Your task to perform on an android device: Open sound settings Image 0: 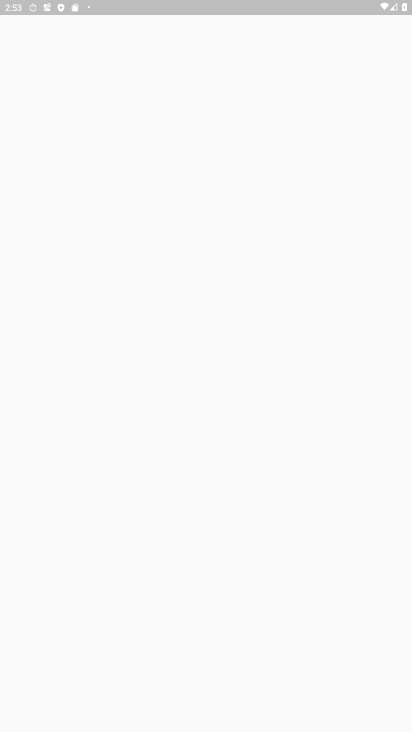
Step 0: press home button
Your task to perform on an android device: Open sound settings Image 1: 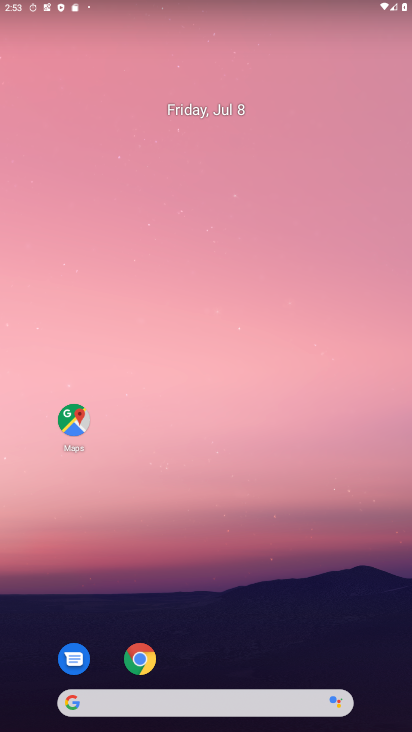
Step 1: drag from (286, 537) to (285, 185)
Your task to perform on an android device: Open sound settings Image 2: 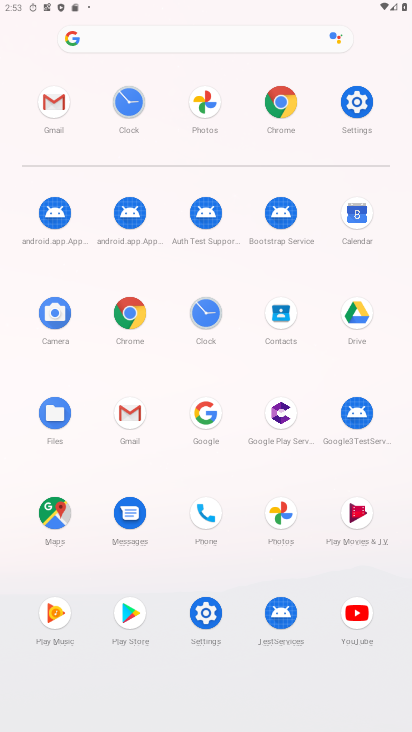
Step 2: click (360, 102)
Your task to perform on an android device: Open sound settings Image 3: 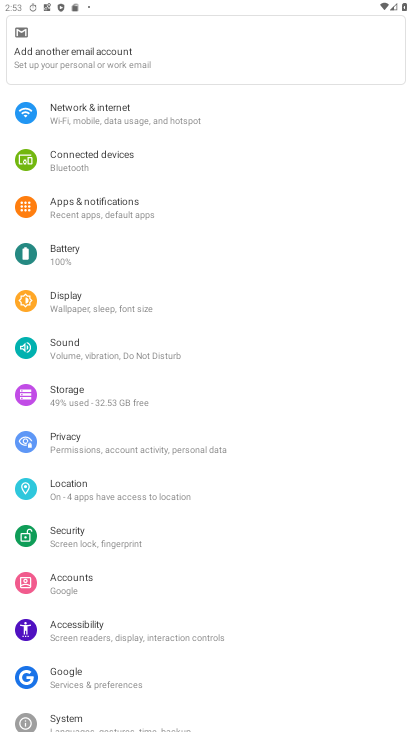
Step 3: click (136, 352)
Your task to perform on an android device: Open sound settings Image 4: 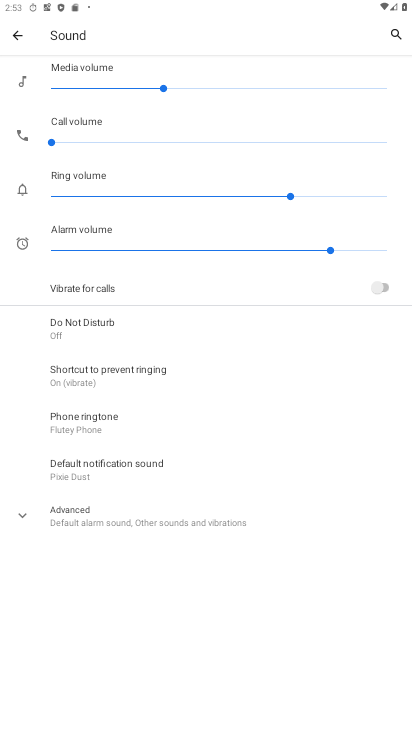
Step 4: task complete